Your task to perform on an android device: Open Yahoo.com Image 0: 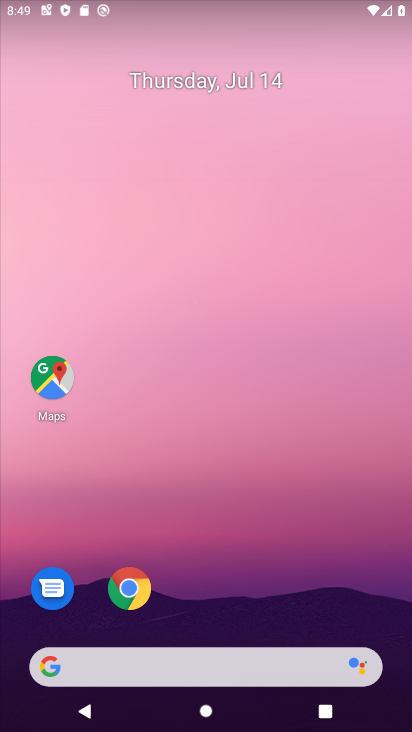
Step 0: click (135, 590)
Your task to perform on an android device: Open Yahoo.com Image 1: 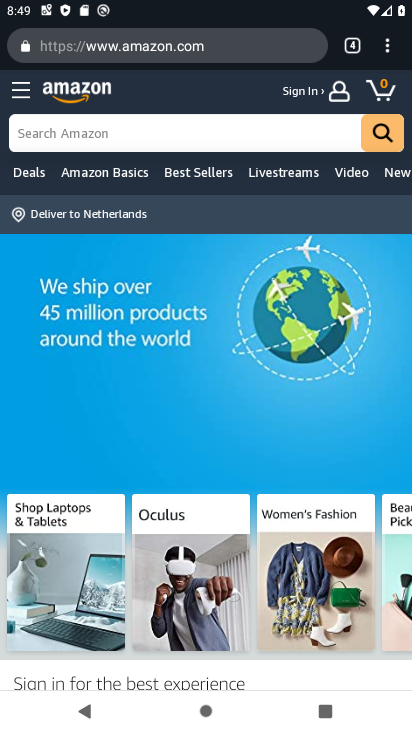
Step 1: press back button
Your task to perform on an android device: Open Yahoo.com Image 2: 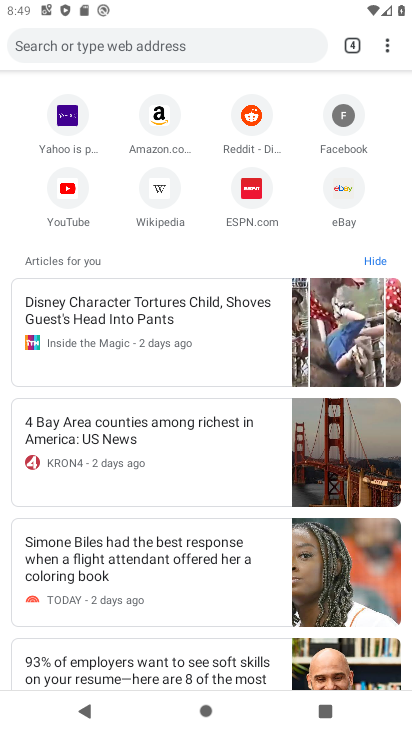
Step 2: click (67, 123)
Your task to perform on an android device: Open Yahoo.com Image 3: 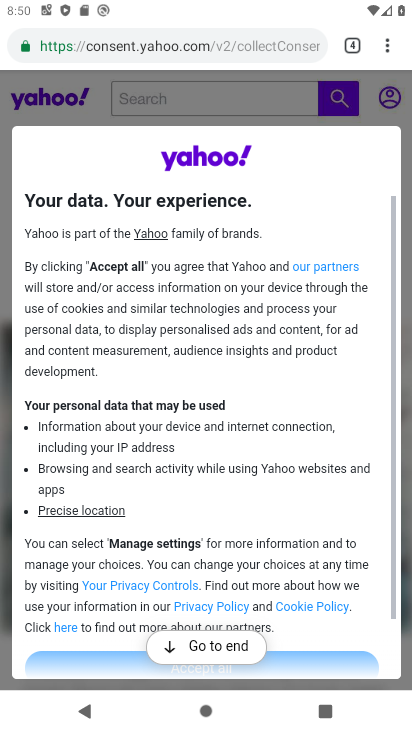
Step 3: task complete